Your task to perform on an android device: find which apps use the phone's location Image 0: 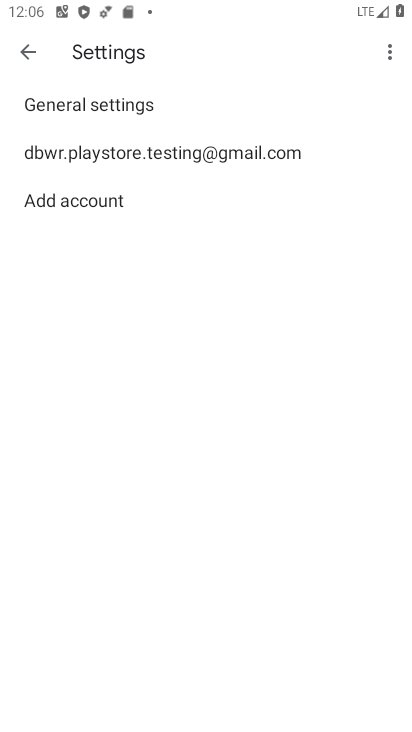
Step 0: press home button
Your task to perform on an android device: find which apps use the phone's location Image 1: 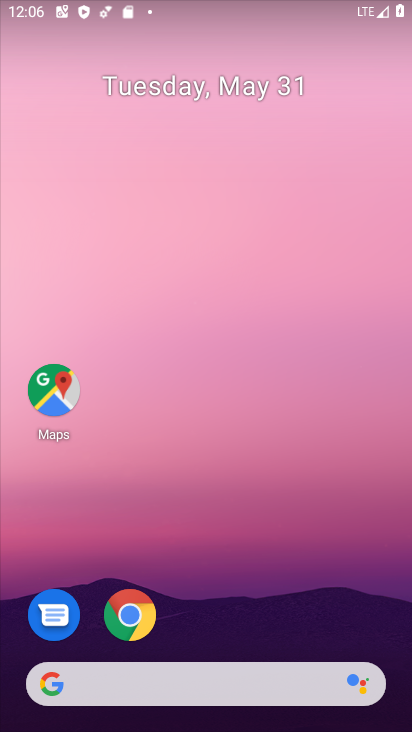
Step 1: drag from (233, 629) to (351, 0)
Your task to perform on an android device: find which apps use the phone's location Image 2: 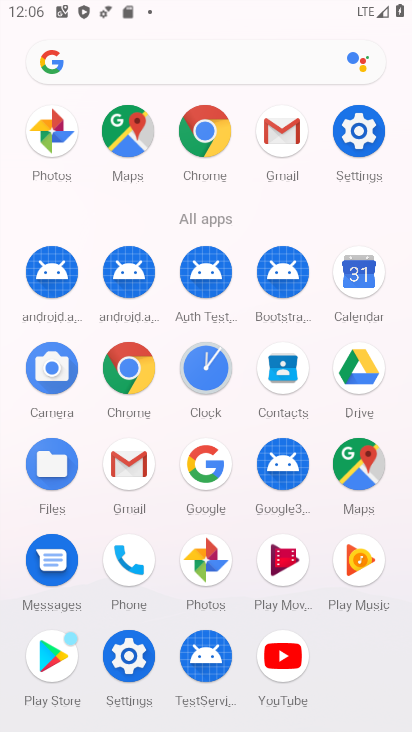
Step 2: click (367, 158)
Your task to perform on an android device: find which apps use the phone's location Image 3: 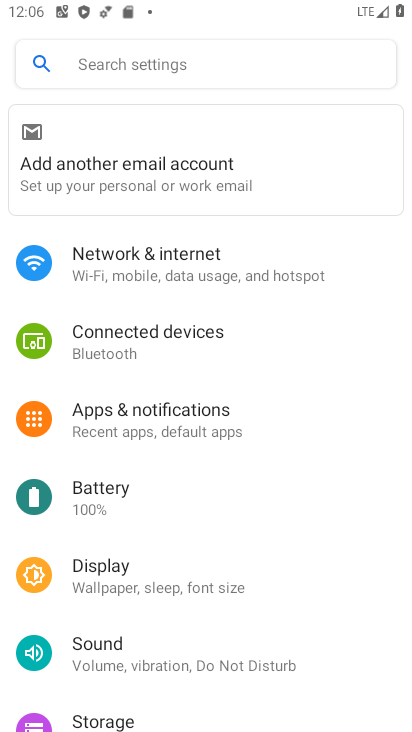
Step 3: drag from (113, 661) to (159, 202)
Your task to perform on an android device: find which apps use the phone's location Image 4: 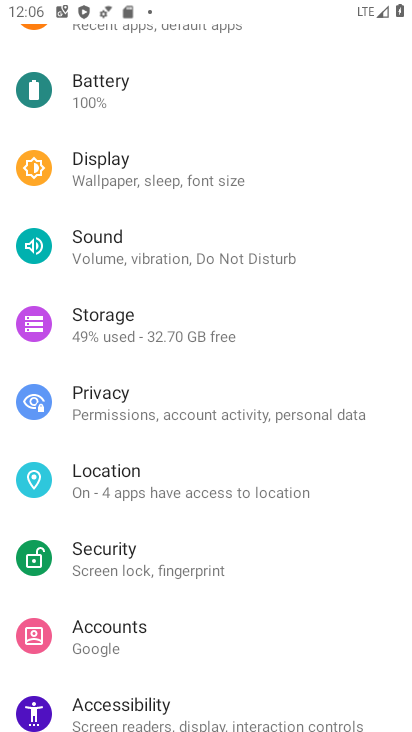
Step 4: click (121, 466)
Your task to perform on an android device: find which apps use the phone's location Image 5: 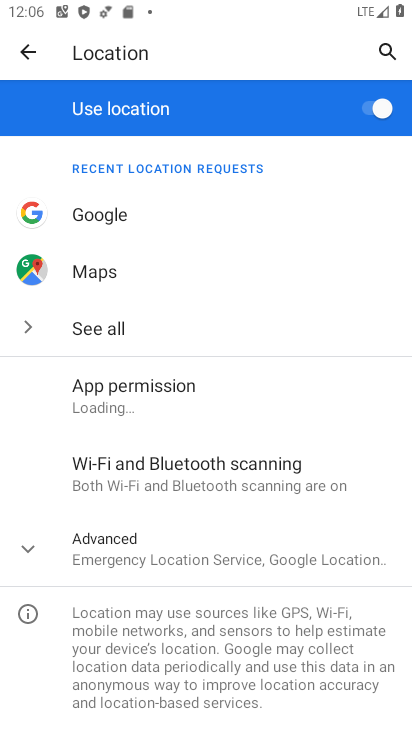
Step 5: click (168, 567)
Your task to perform on an android device: find which apps use the phone's location Image 6: 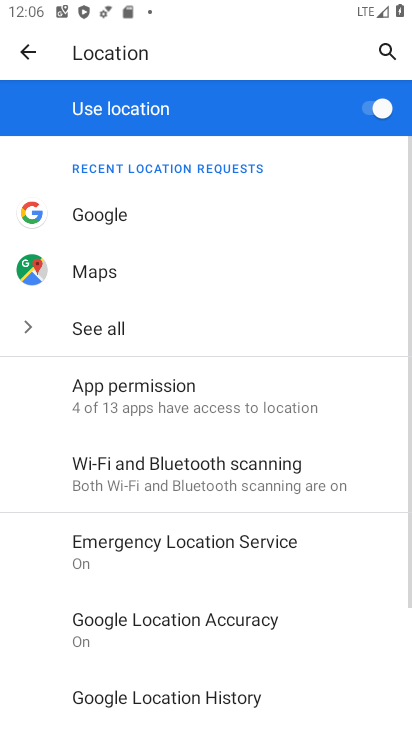
Step 6: drag from (190, 644) to (205, 507)
Your task to perform on an android device: find which apps use the phone's location Image 7: 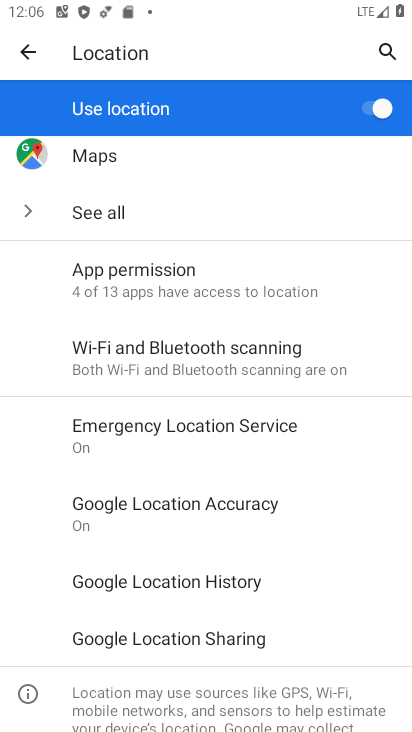
Step 7: click (172, 275)
Your task to perform on an android device: find which apps use the phone's location Image 8: 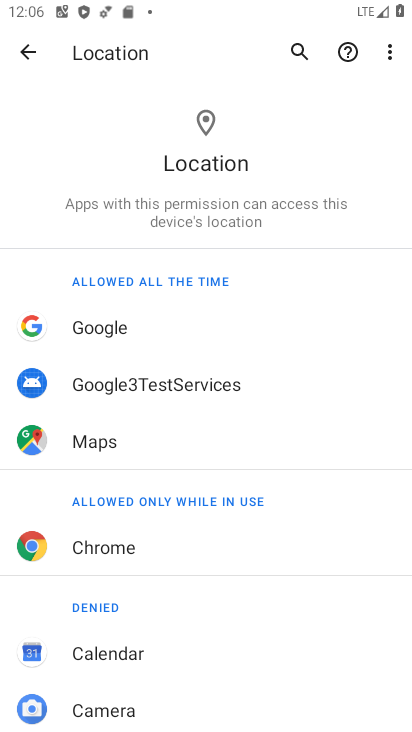
Step 8: task complete